Your task to perform on an android device: toggle wifi Image 0: 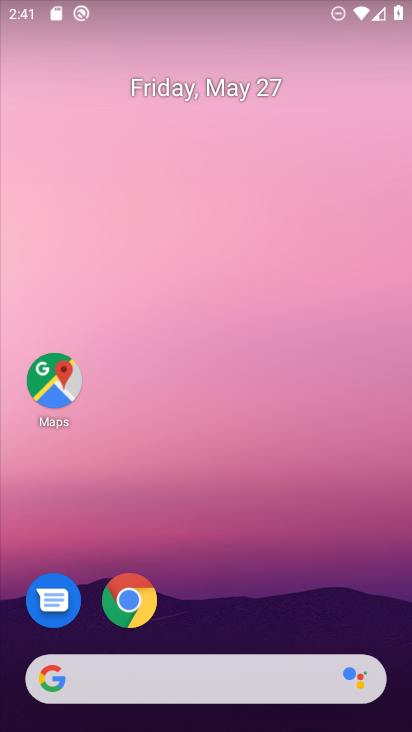
Step 0: drag from (223, 721) to (214, 71)
Your task to perform on an android device: toggle wifi Image 1: 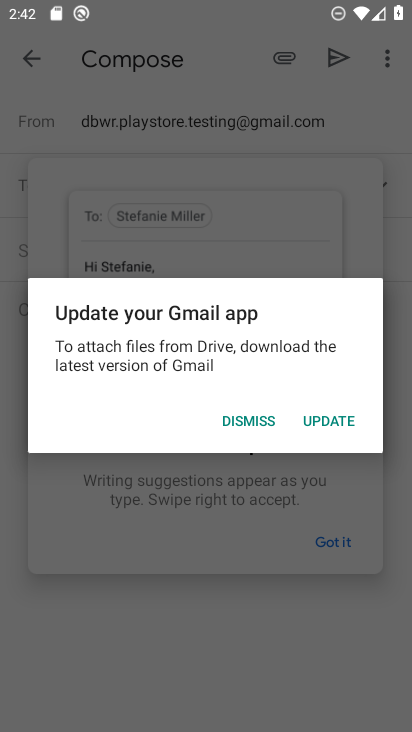
Step 1: click (131, 146)
Your task to perform on an android device: toggle wifi Image 2: 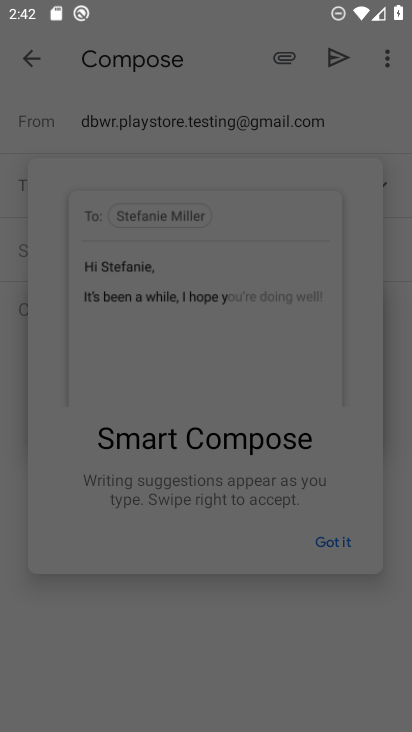
Step 2: press home button
Your task to perform on an android device: toggle wifi Image 3: 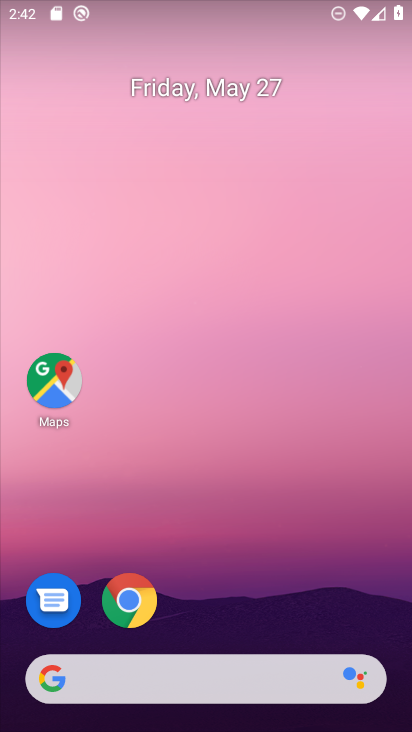
Step 3: drag from (219, 720) to (217, 77)
Your task to perform on an android device: toggle wifi Image 4: 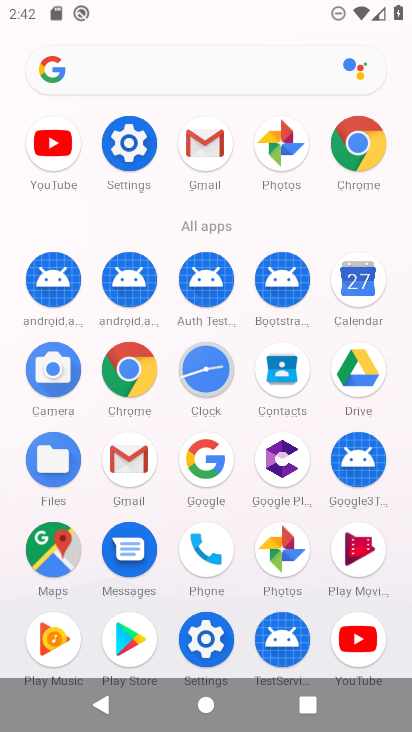
Step 4: click (130, 155)
Your task to perform on an android device: toggle wifi Image 5: 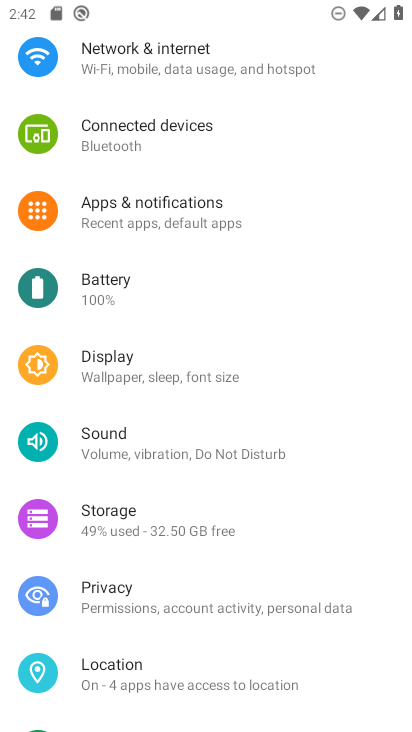
Step 5: drag from (292, 126) to (288, 497)
Your task to perform on an android device: toggle wifi Image 6: 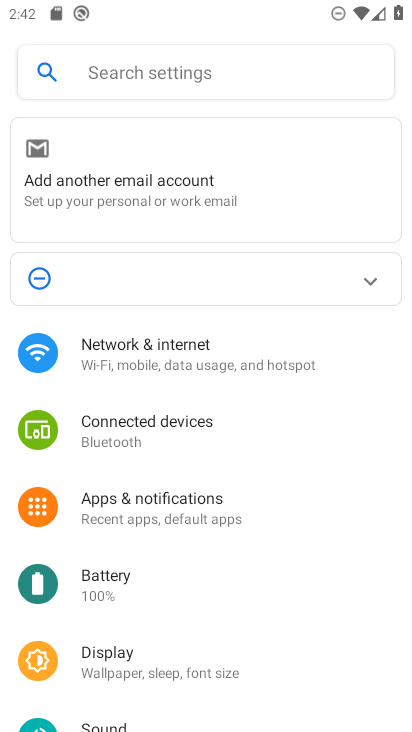
Step 6: click (135, 355)
Your task to perform on an android device: toggle wifi Image 7: 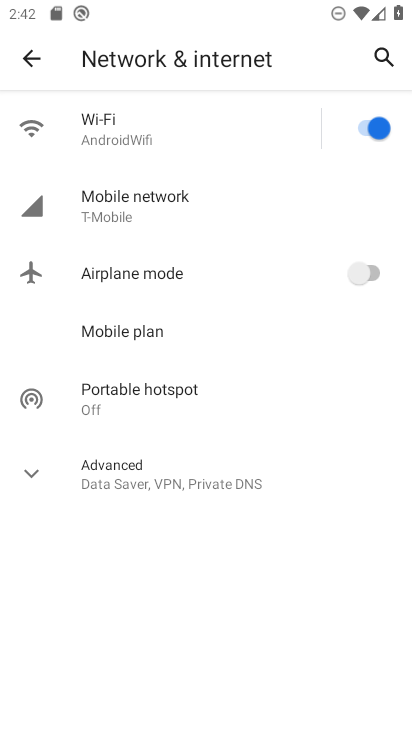
Step 7: click (361, 126)
Your task to perform on an android device: toggle wifi Image 8: 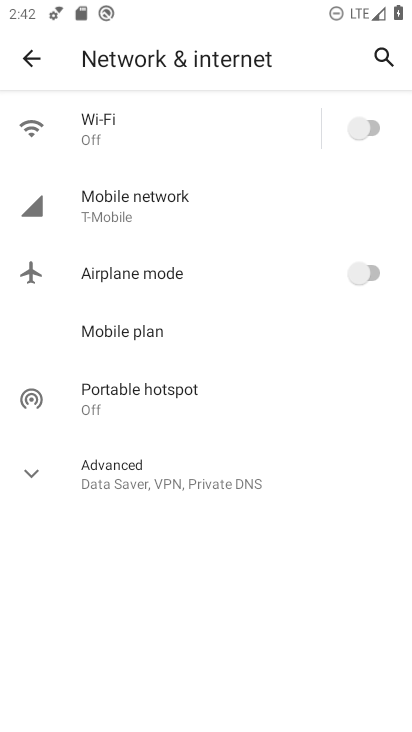
Step 8: task complete